Your task to perform on an android device: turn off notifications settings in the gmail app Image 0: 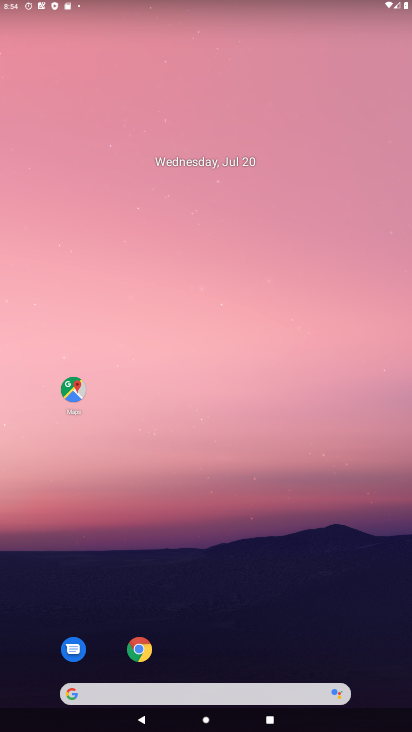
Step 0: drag from (200, 699) to (330, 33)
Your task to perform on an android device: turn off notifications settings in the gmail app Image 1: 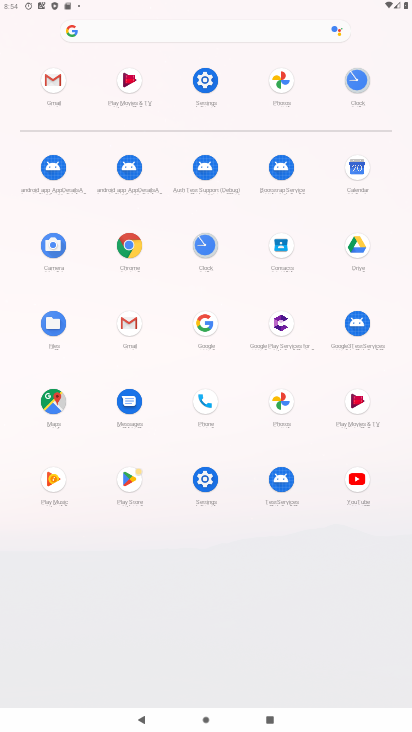
Step 1: click (54, 80)
Your task to perform on an android device: turn off notifications settings in the gmail app Image 2: 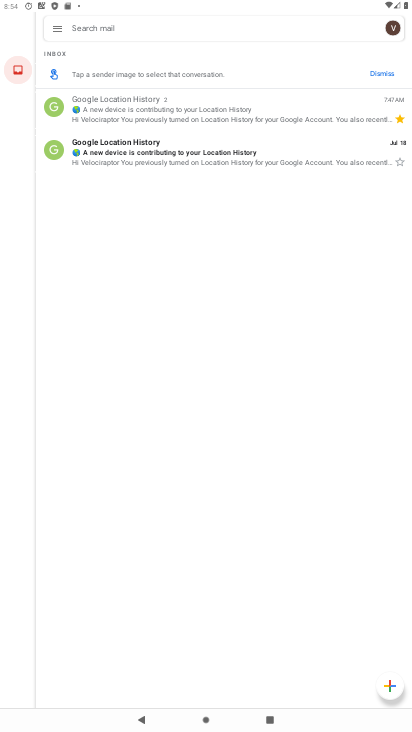
Step 2: click (54, 80)
Your task to perform on an android device: turn off notifications settings in the gmail app Image 3: 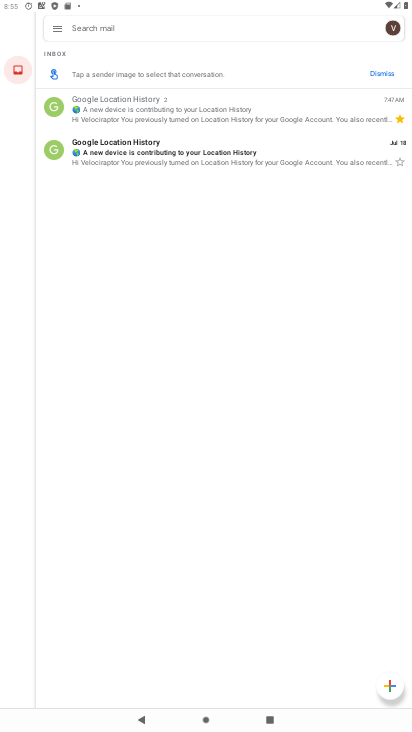
Step 3: click (55, 28)
Your task to perform on an android device: turn off notifications settings in the gmail app Image 4: 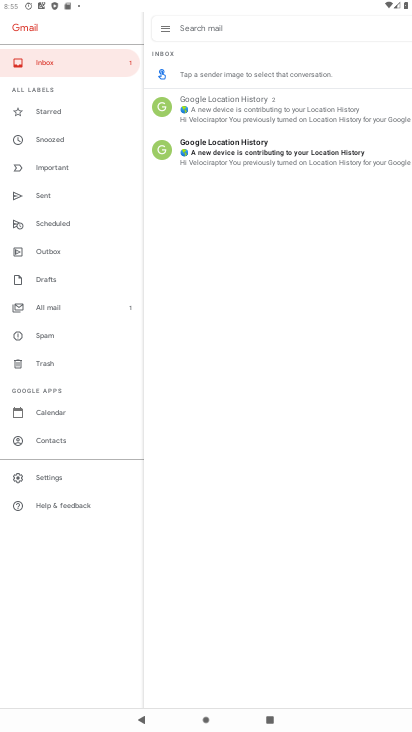
Step 4: click (54, 478)
Your task to perform on an android device: turn off notifications settings in the gmail app Image 5: 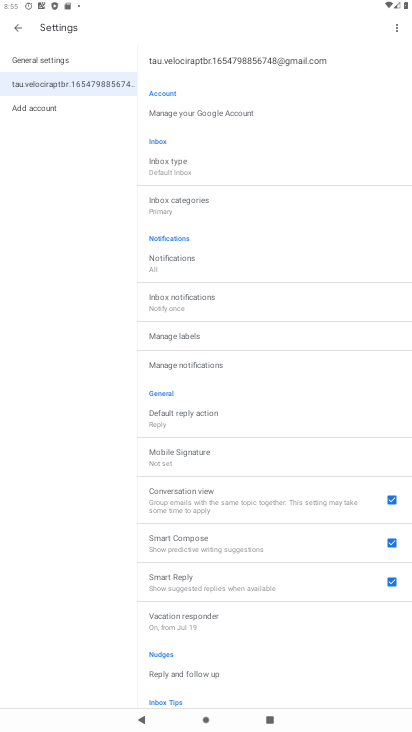
Step 5: click (180, 365)
Your task to perform on an android device: turn off notifications settings in the gmail app Image 6: 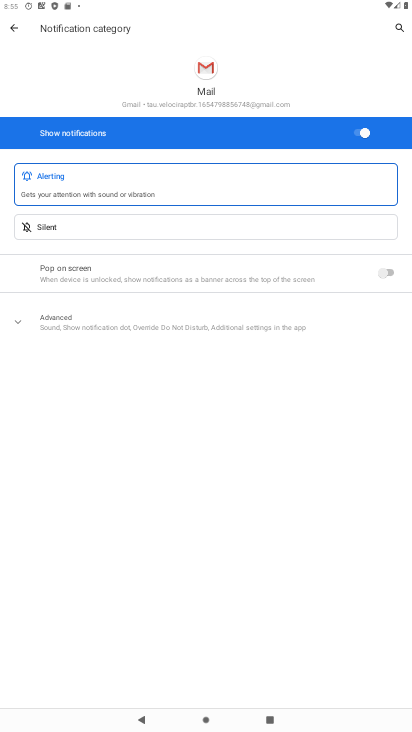
Step 6: click (359, 134)
Your task to perform on an android device: turn off notifications settings in the gmail app Image 7: 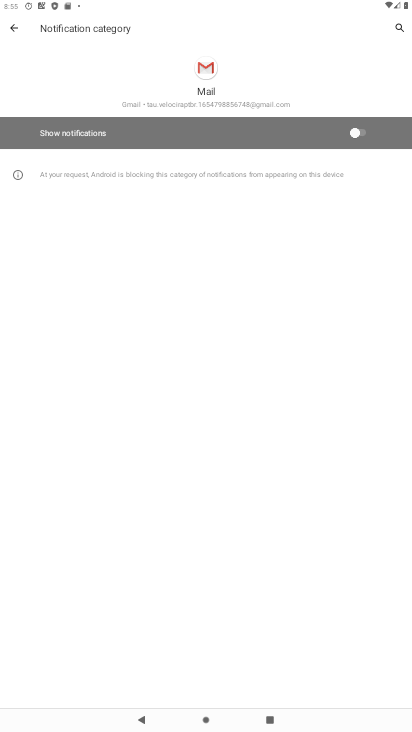
Step 7: task complete